Your task to perform on an android device: What's the weather going to be this weekend? Image 0: 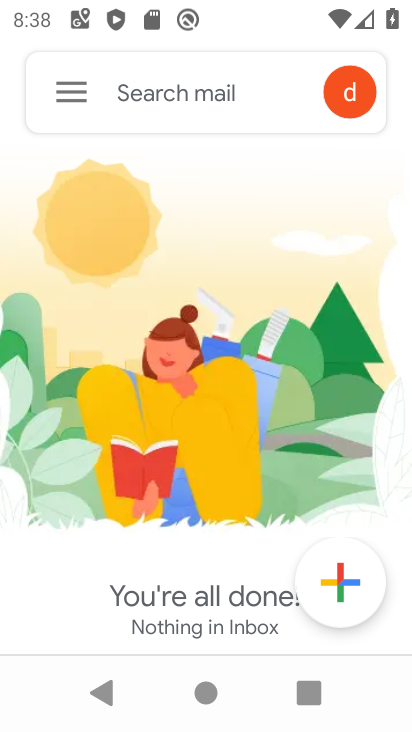
Step 0: press home button
Your task to perform on an android device: What's the weather going to be this weekend? Image 1: 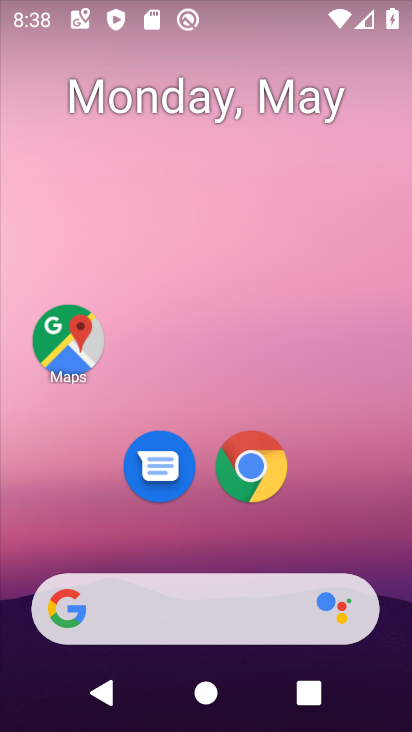
Step 1: click (178, 590)
Your task to perform on an android device: What's the weather going to be this weekend? Image 2: 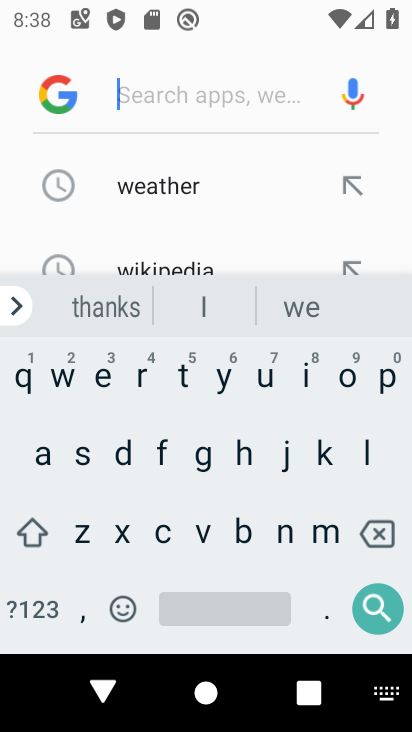
Step 2: click (174, 194)
Your task to perform on an android device: What's the weather going to be this weekend? Image 3: 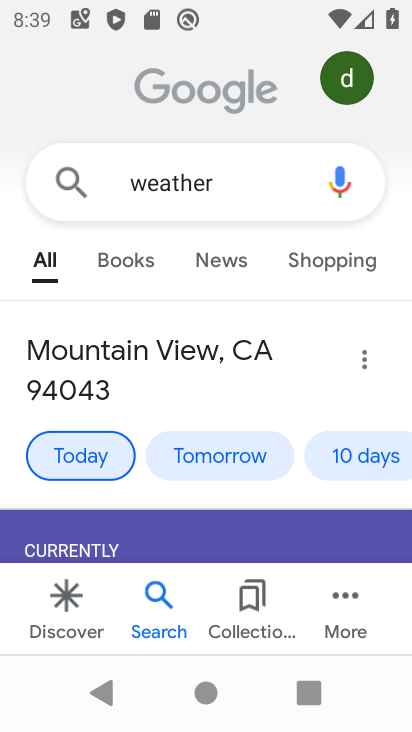
Step 3: click (358, 449)
Your task to perform on an android device: What's the weather going to be this weekend? Image 4: 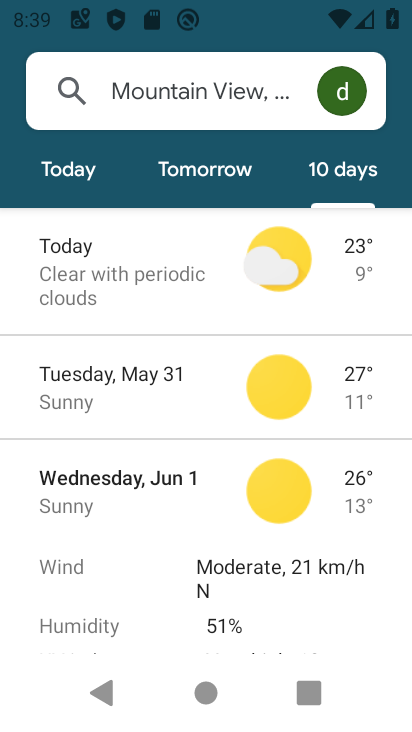
Step 4: task complete